Your task to perform on an android device: Turn on the flashlight Image 0: 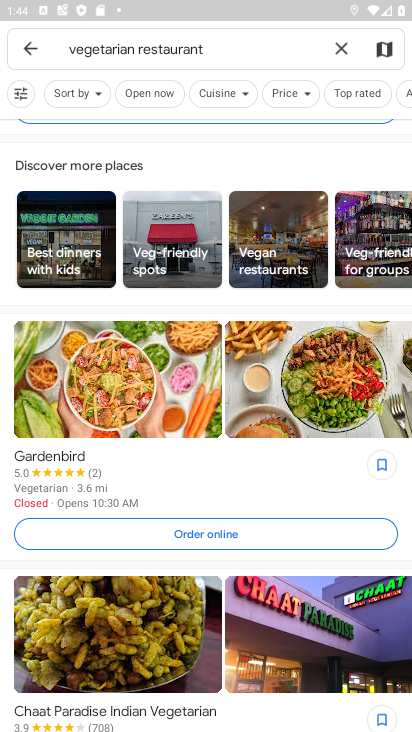
Step 0: press home button
Your task to perform on an android device: Turn on the flashlight Image 1: 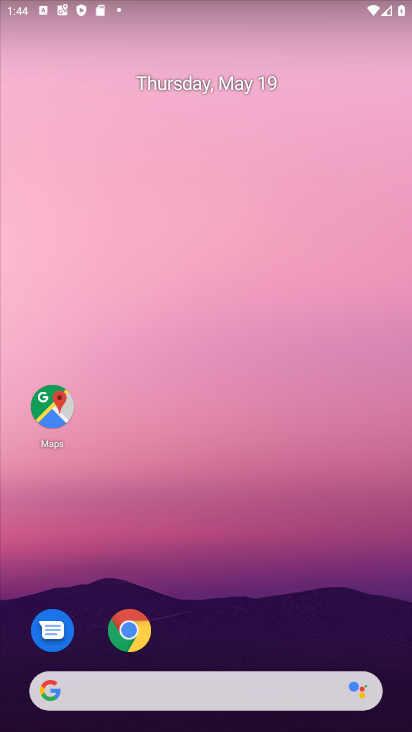
Step 1: drag from (251, 13) to (262, 648)
Your task to perform on an android device: Turn on the flashlight Image 2: 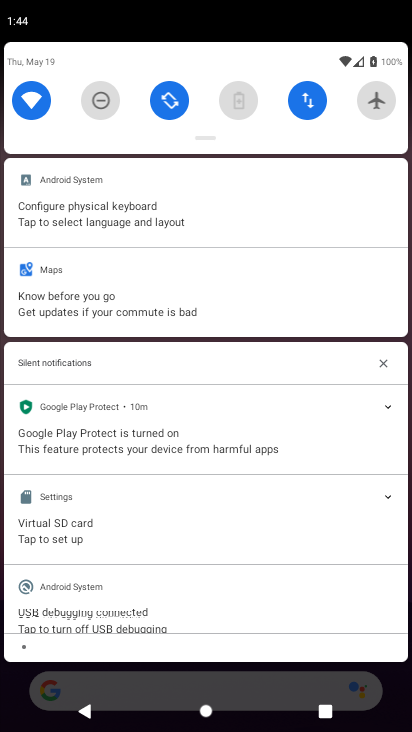
Step 2: drag from (206, 133) to (218, 409)
Your task to perform on an android device: Turn on the flashlight Image 3: 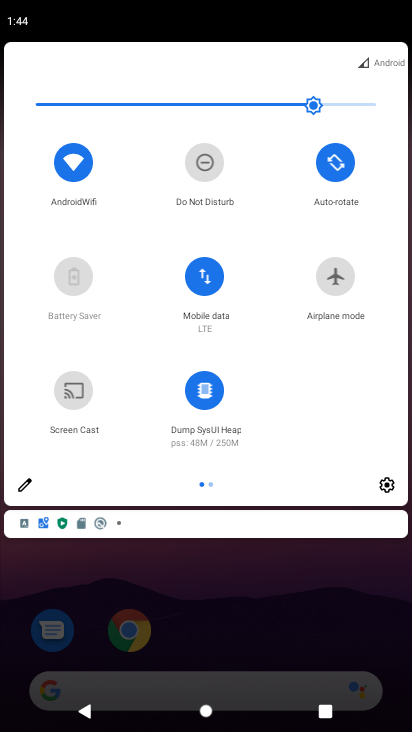
Step 3: click (22, 484)
Your task to perform on an android device: Turn on the flashlight Image 4: 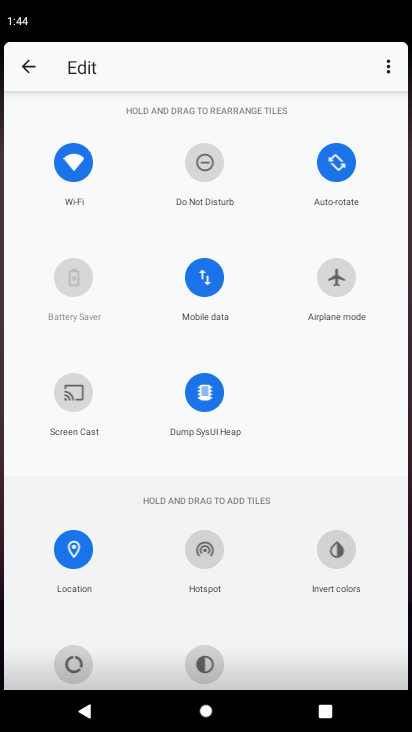
Step 4: task complete